Your task to perform on an android device: Go to CNN.com Image 0: 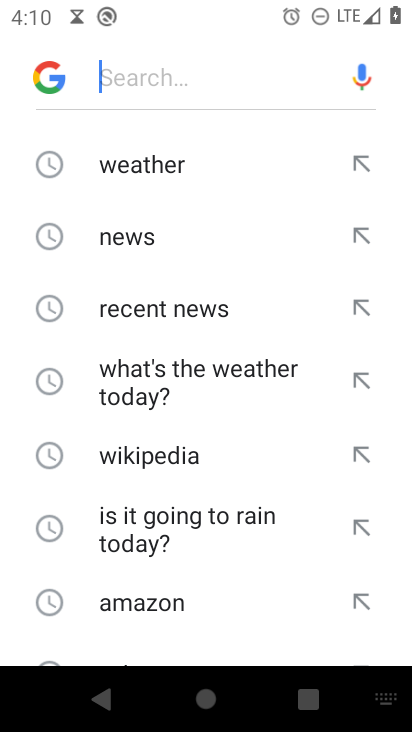
Step 0: press home button
Your task to perform on an android device: Go to CNN.com Image 1: 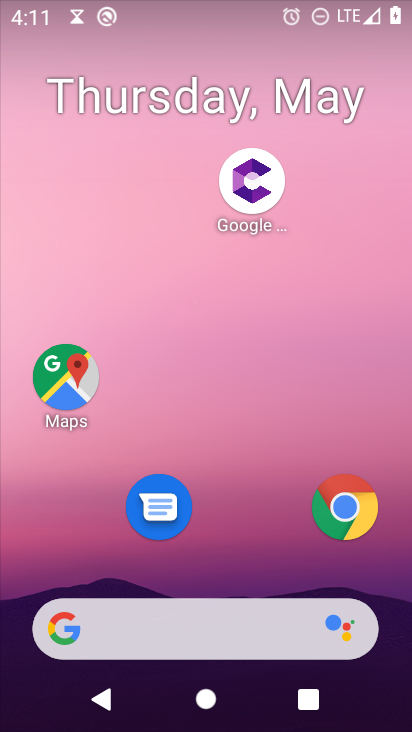
Step 1: click (67, 615)
Your task to perform on an android device: Go to CNN.com Image 2: 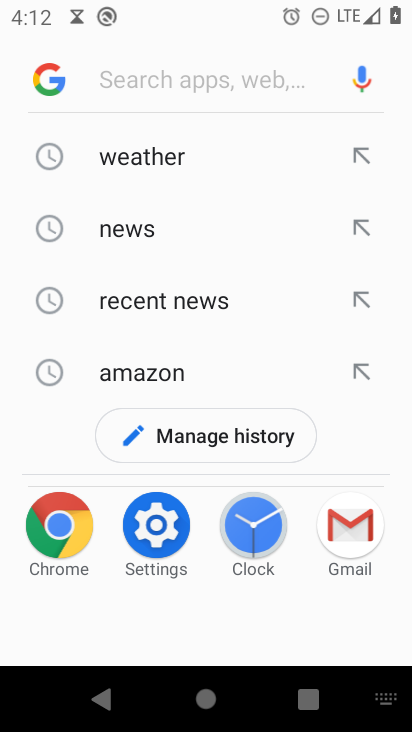
Step 2: type "CNN.com"
Your task to perform on an android device: Go to CNN.com Image 3: 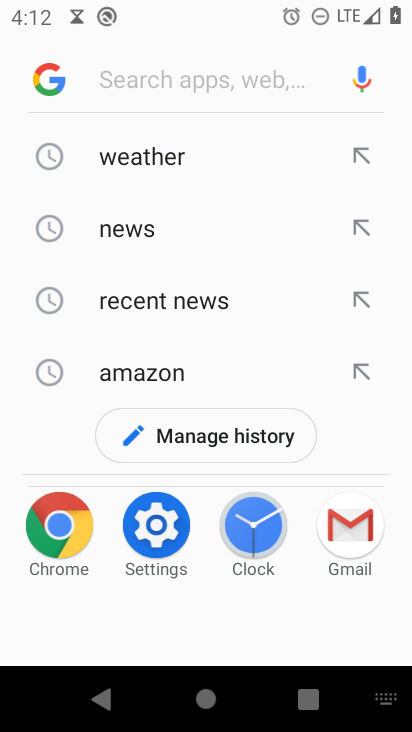
Step 3: click (195, 71)
Your task to perform on an android device: Go to CNN.com Image 4: 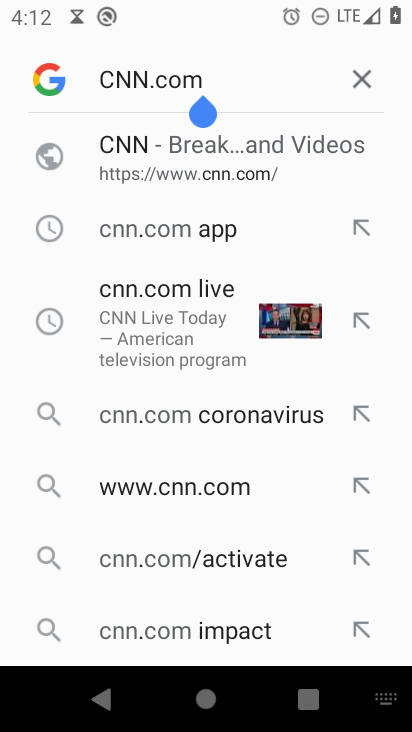
Step 4: click (143, 146)
Your task to perform on an android device: Go to CNN.com Image 5: 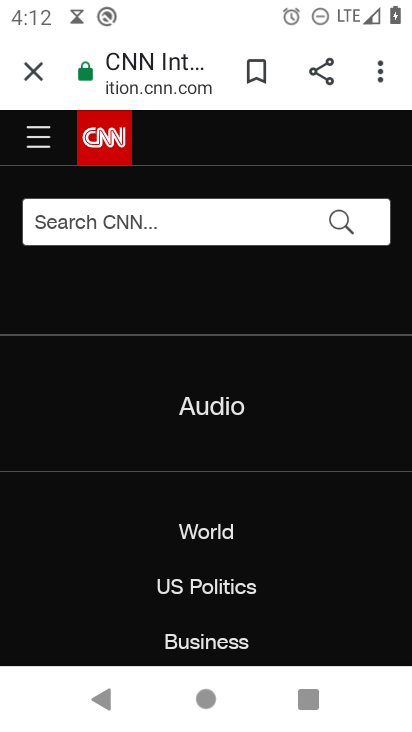
Step 5: task complete